Your task to perform on an android device: Open calendar and show me the first week of next month Image 0: 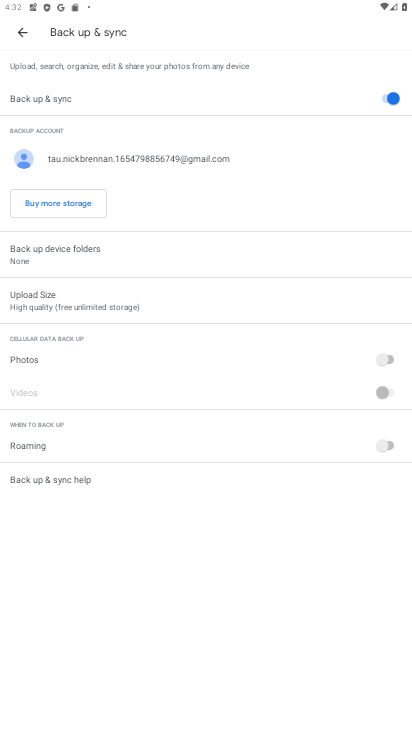
Step 0: press home button
Your task to perform on an android device: Open calendar and show me the first week of next month Image 1: 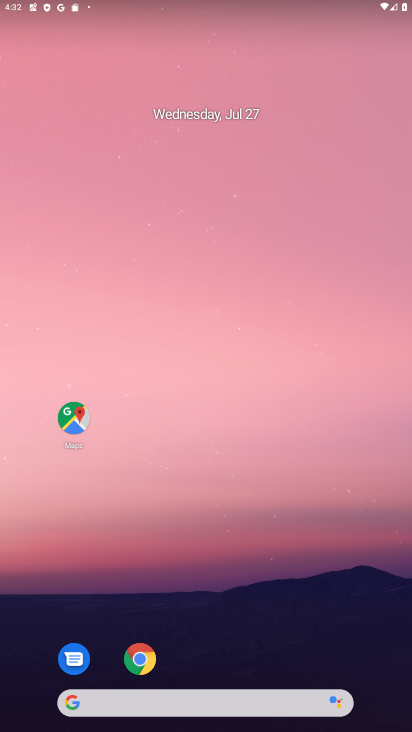
Step 1: drag from (308, 643) to (264, 196)
Your task to perform on an android device: Open calendar and show me the first week of next month Image 2: 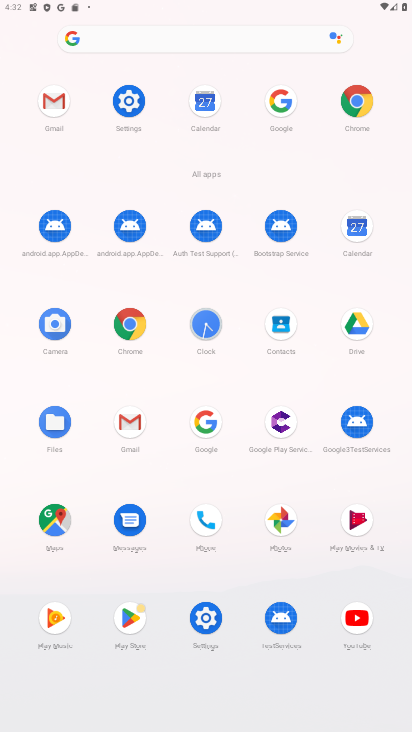
Step 2: click (357, 228)
Your task to perform on an android device: Open calendar and show me the first week of next month Image 3: 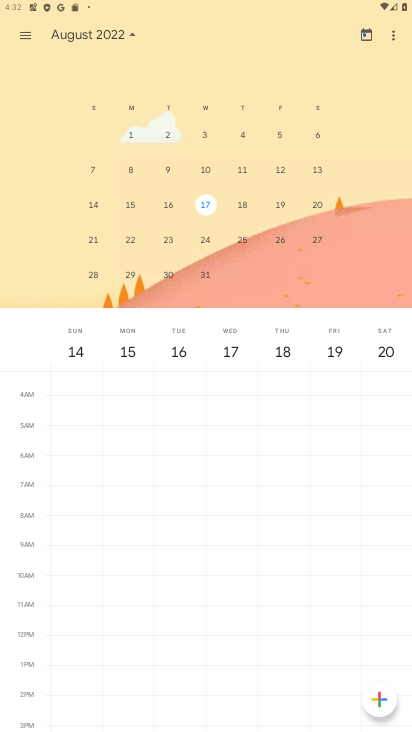
Step 3: click (201, 144)
Your task to perform on an android device: Open calendar and show me the first week of next month Image 4: 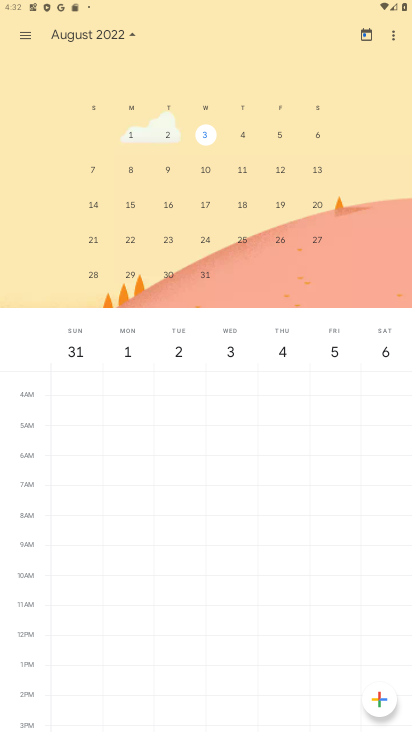
Step 4: task complete